Your task to perform on an android device: Add razer blade to the cart on amazon Image 0: 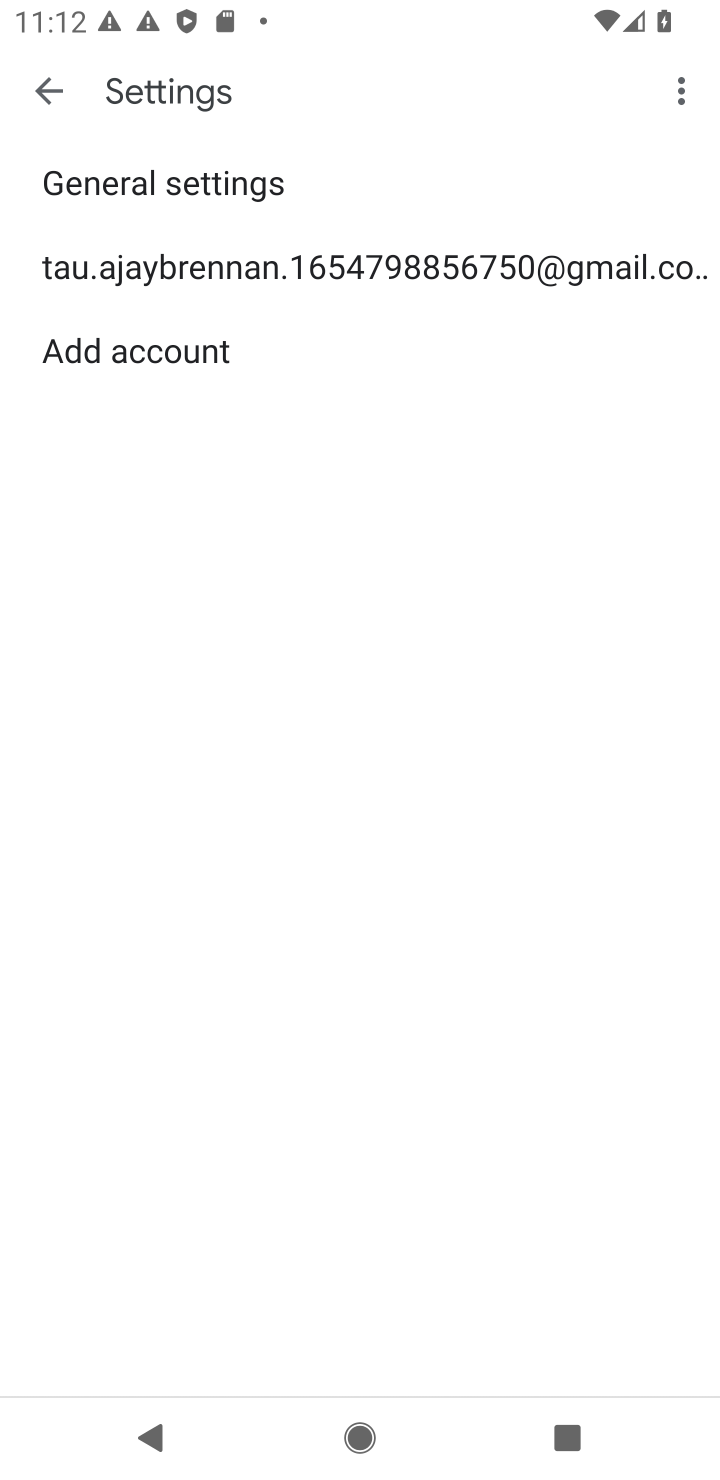
Step 0: press home button
Your task to perform on an android device: Add razer blade to the cart on amazon Image 1: 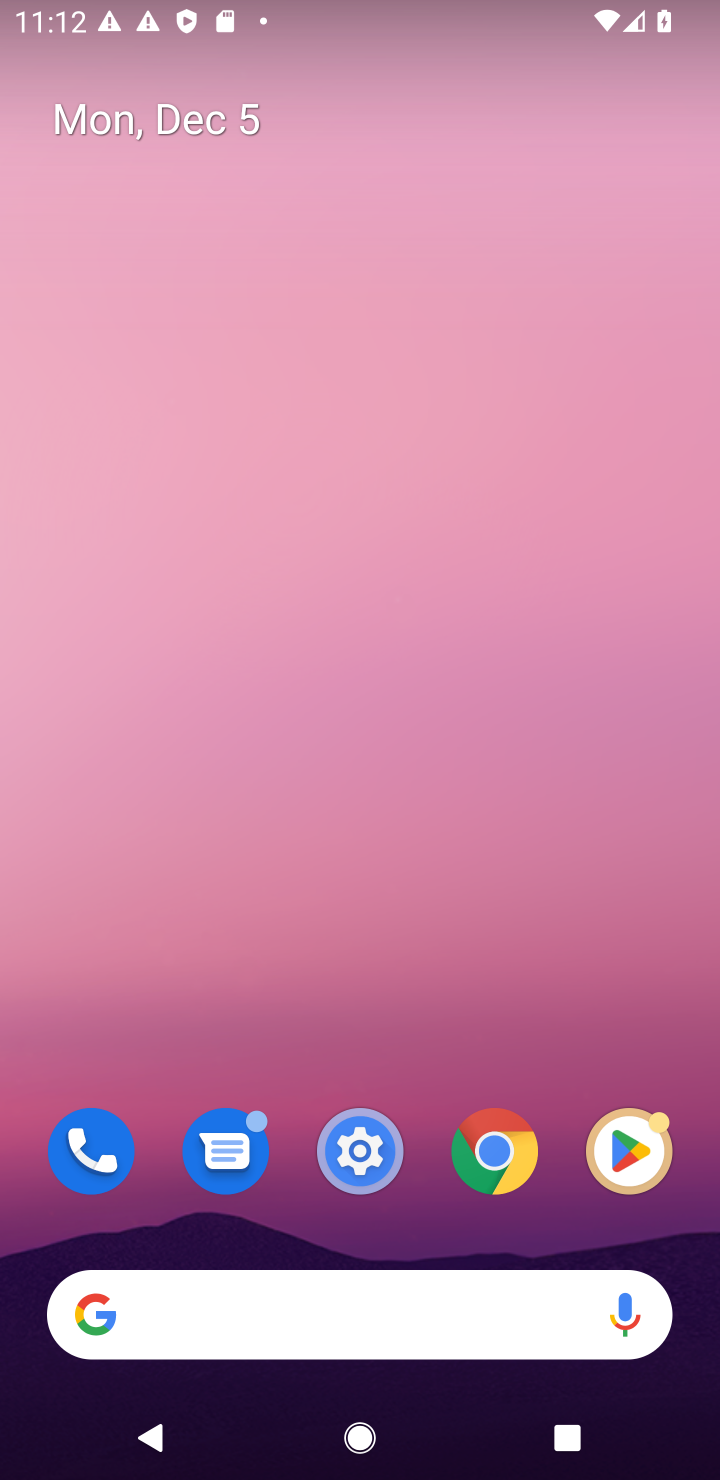
Step 1: click (495, 1161)
Your task to perform on an android device: Add razer blade to the cart on amazon Image 2: 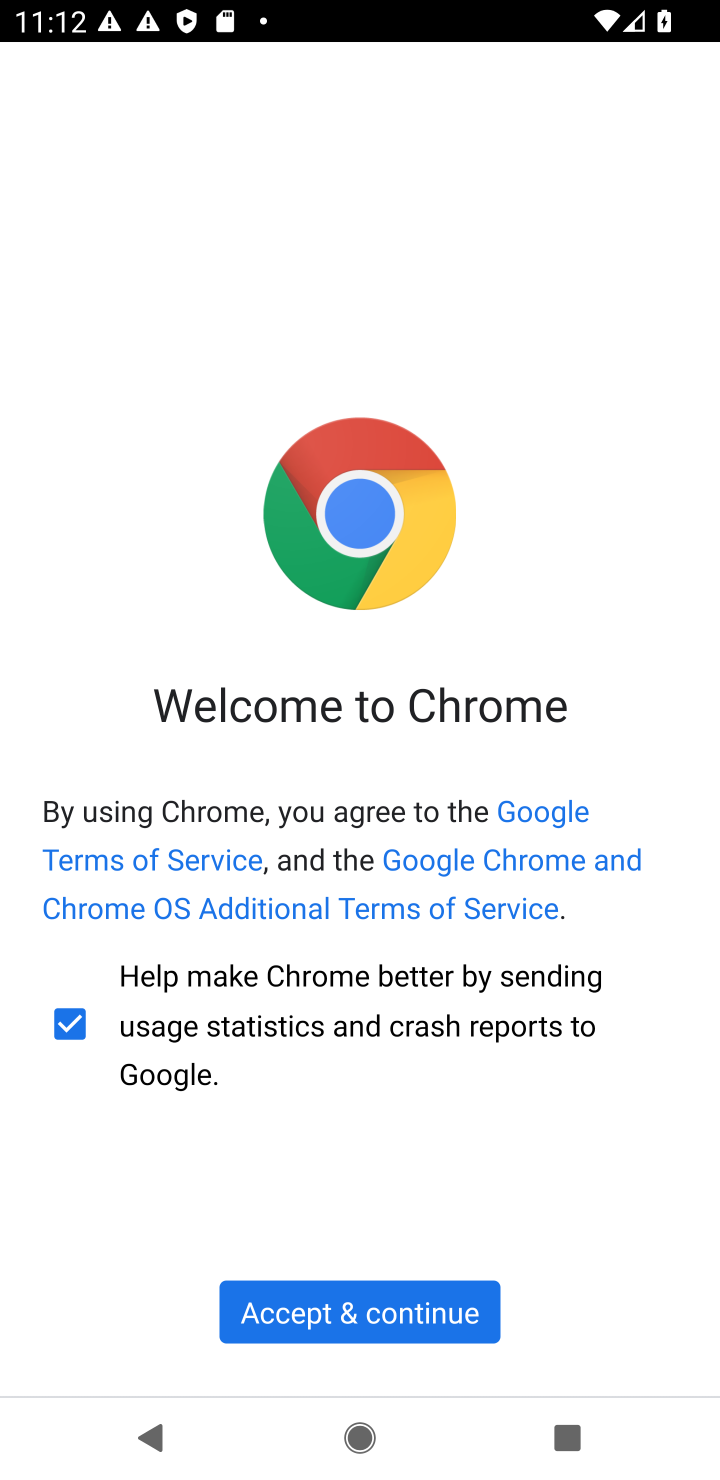
Step 2: click (326, 1327)
Your task to perform on an android device: Add razer blade to the cart on amazon Image 3: 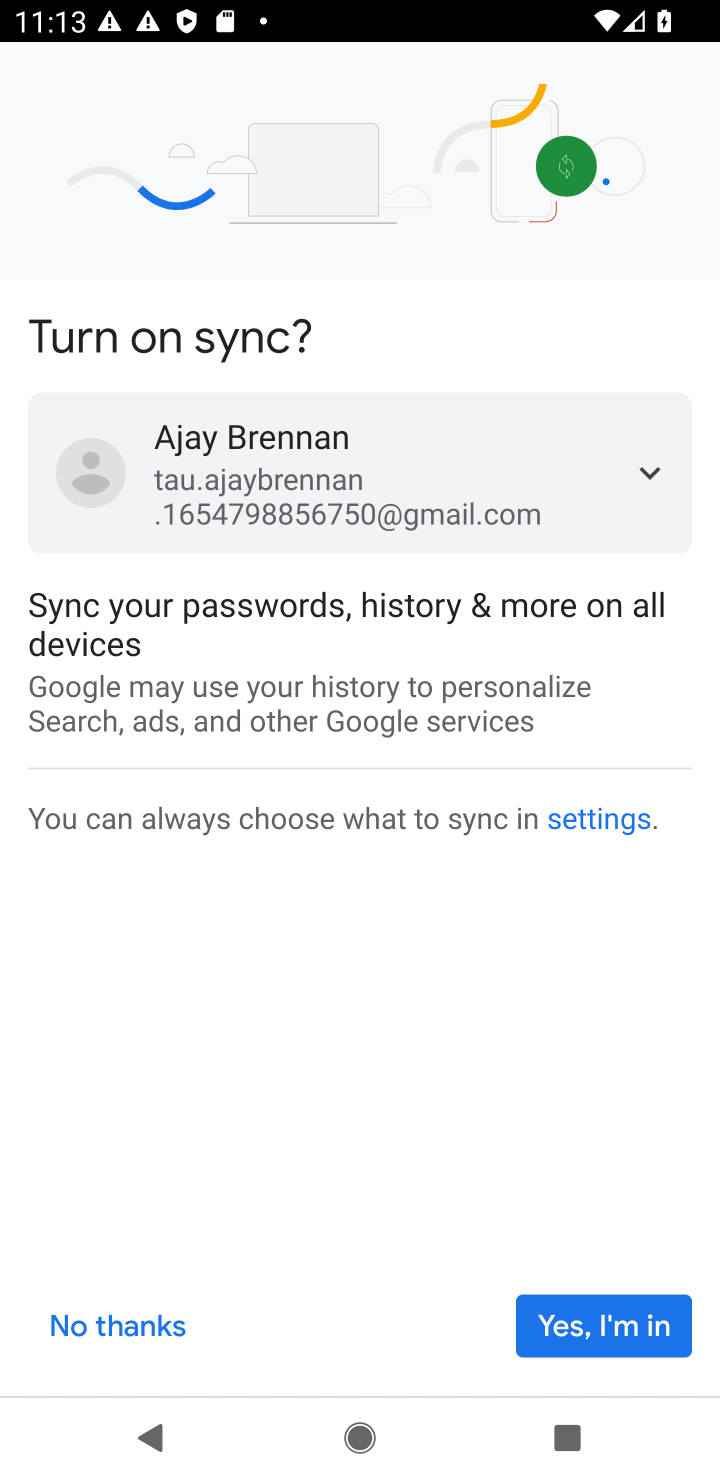
Step 3: click (138, 1321)
Your task to perform on an android device: Add razer blade to the cart on amazon Image 4: 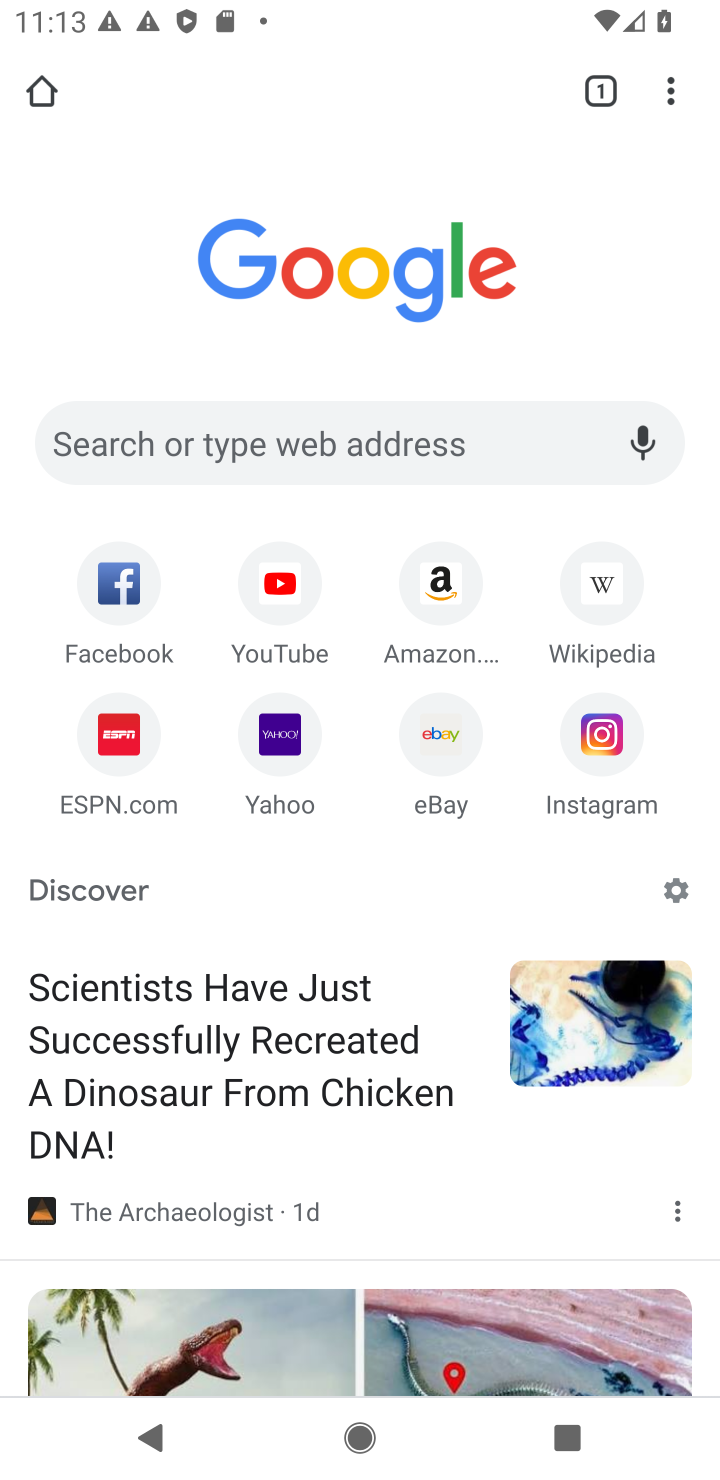
Step 4: click (431, 602)
Your task to perform on an android device: Add razer blade to the cart on amazon Image 5: 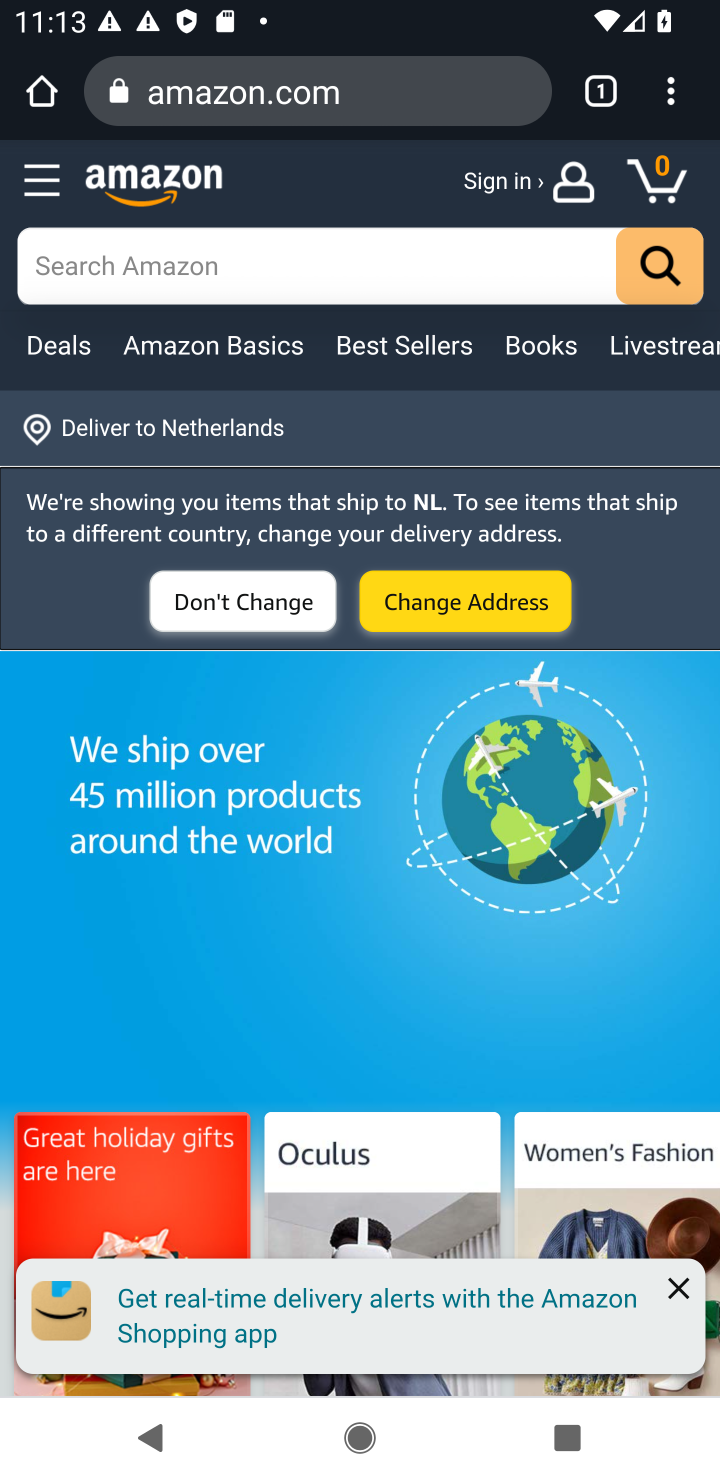
Step 5: click (398, 276)
Your task to perform on an android device: Add razer blade to the cart on amazon Image 6: 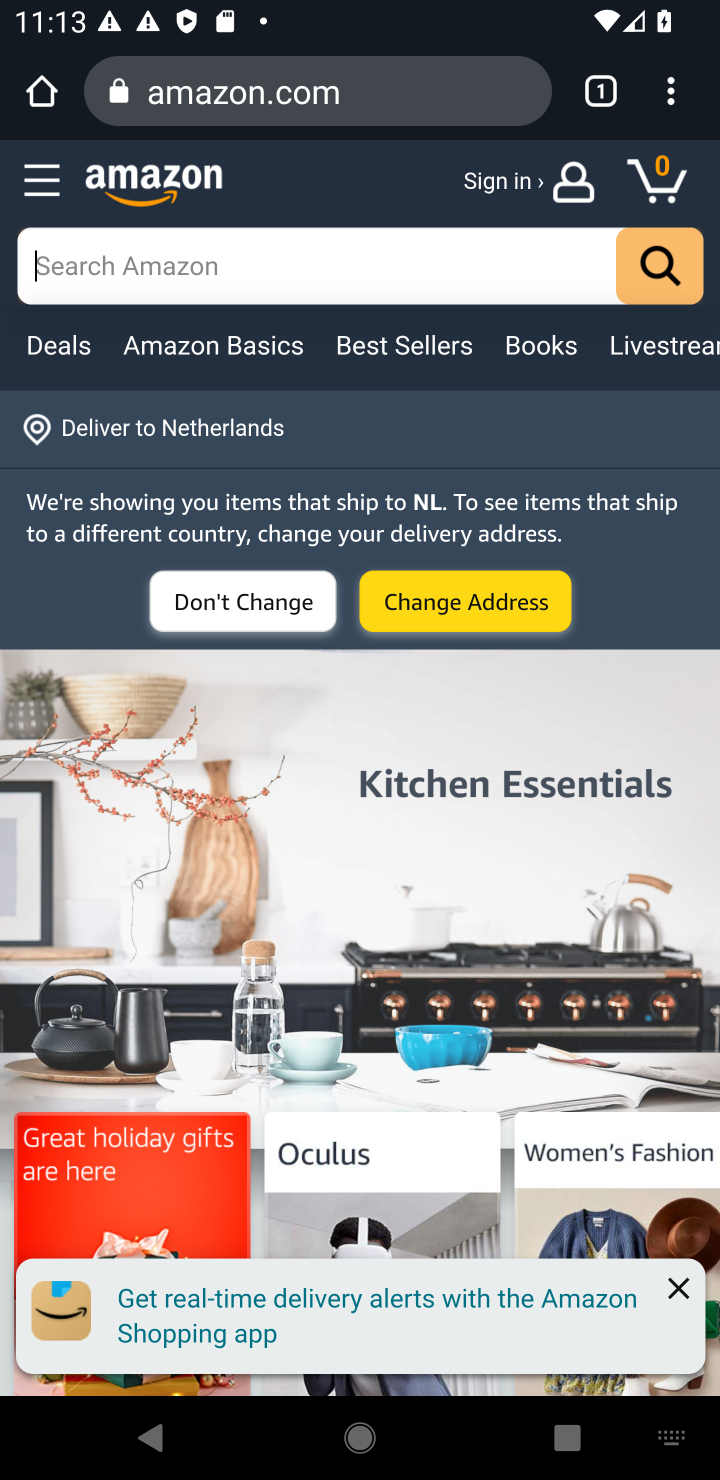
Step 6: type "razer blade"
Your task to perform on an android device: Add razer blade to the cart on amazon Image 7: 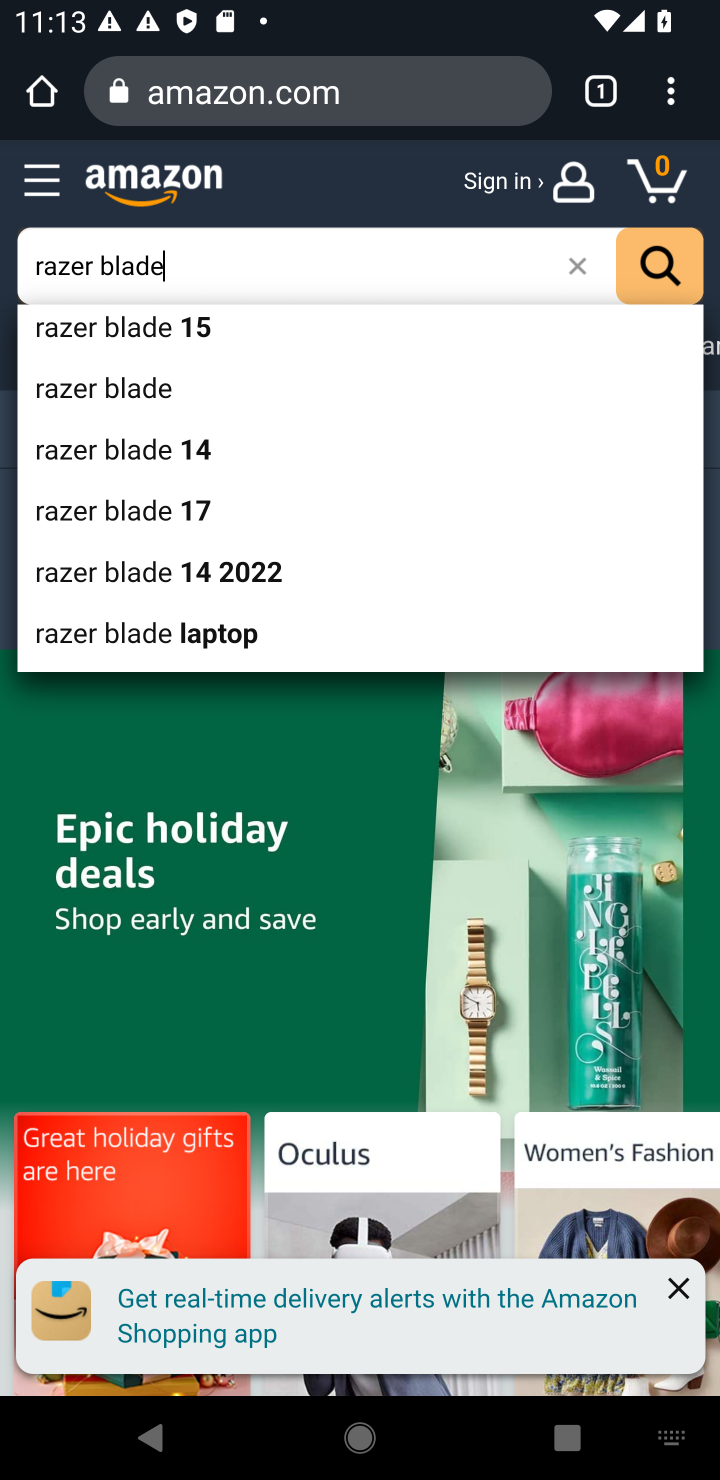
Step 7: click (113, 403)
Your task to perform on an android device: Add razer blade to the cart on amazon Image 8: 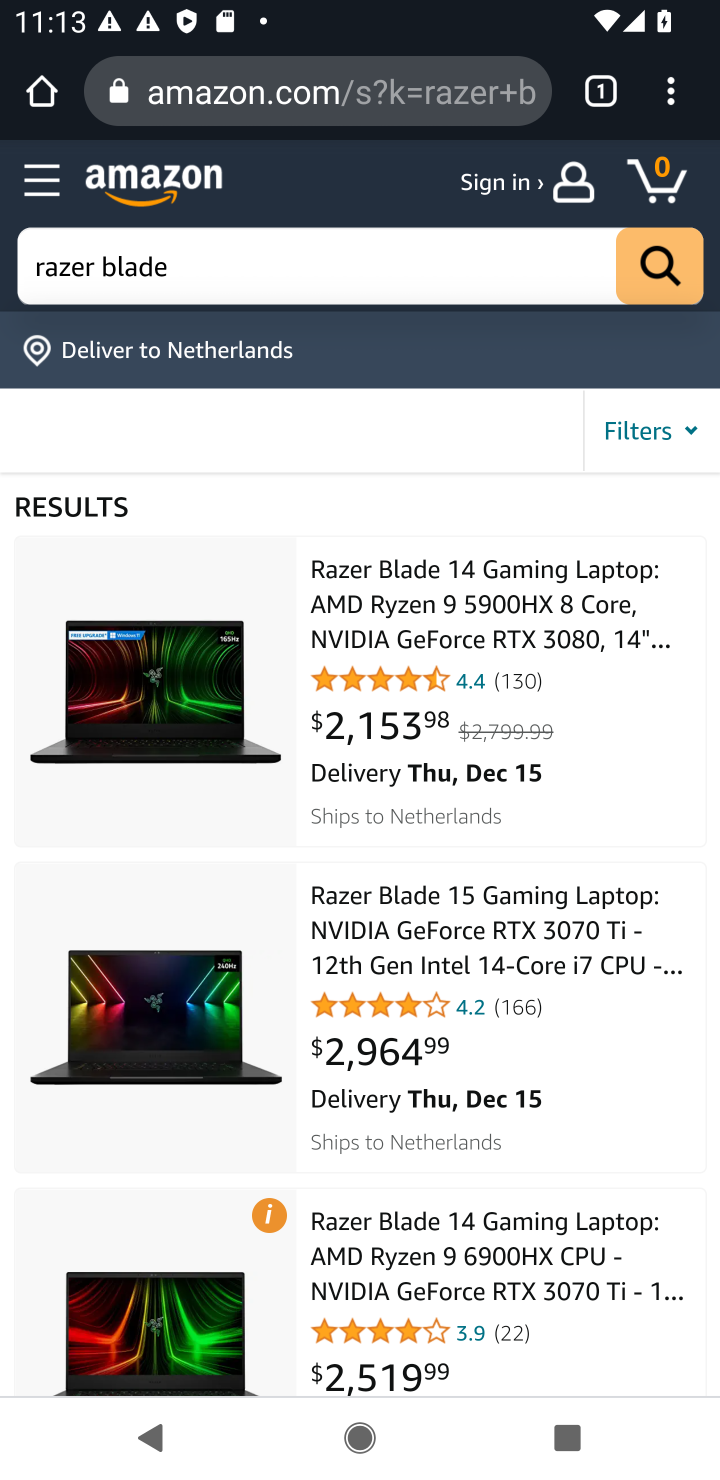
Step 8: click (415, 660)
Your task to perform on an android device: Add razer blade to the cart on amazon Image 9: 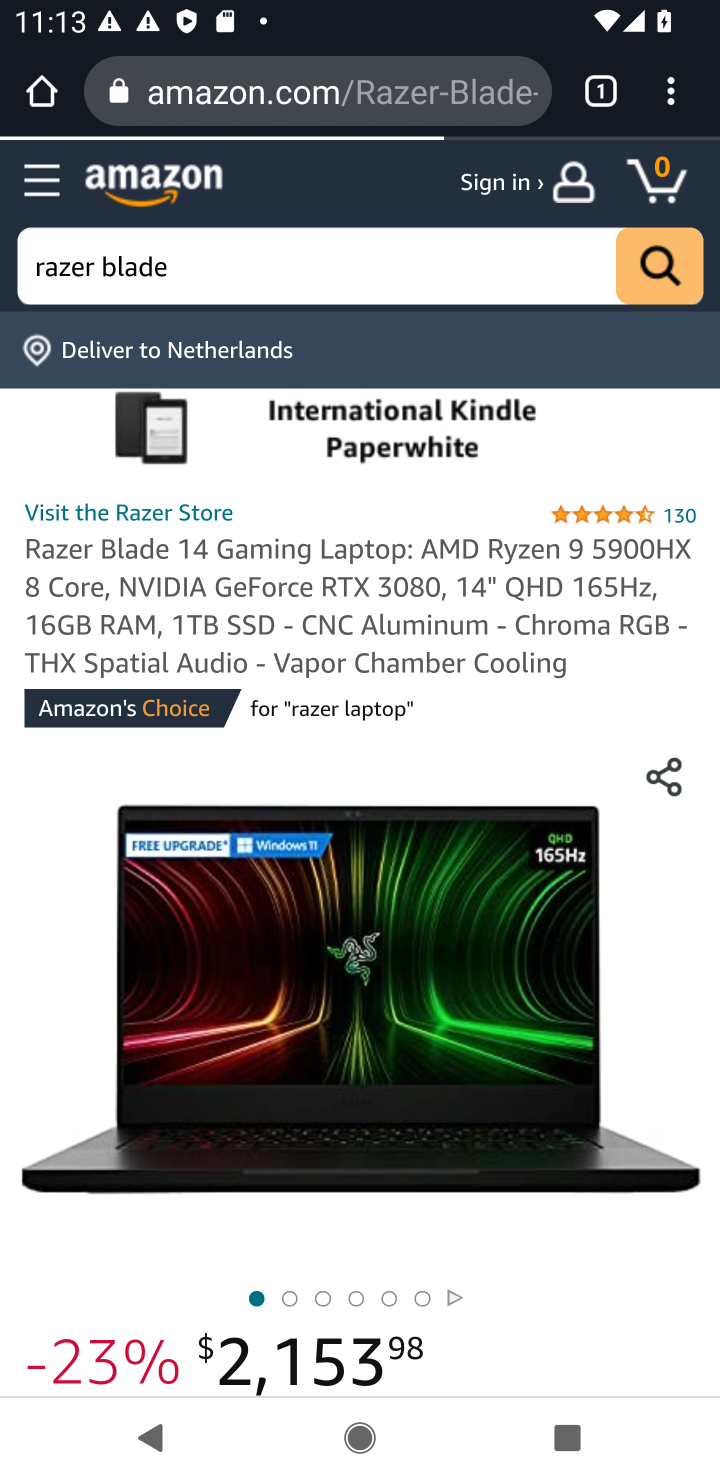
Step 9: drag from (368, 819) to (366, 429)
Your task to perform on an android device: Add razer blade to the cart on amazon Image 10: 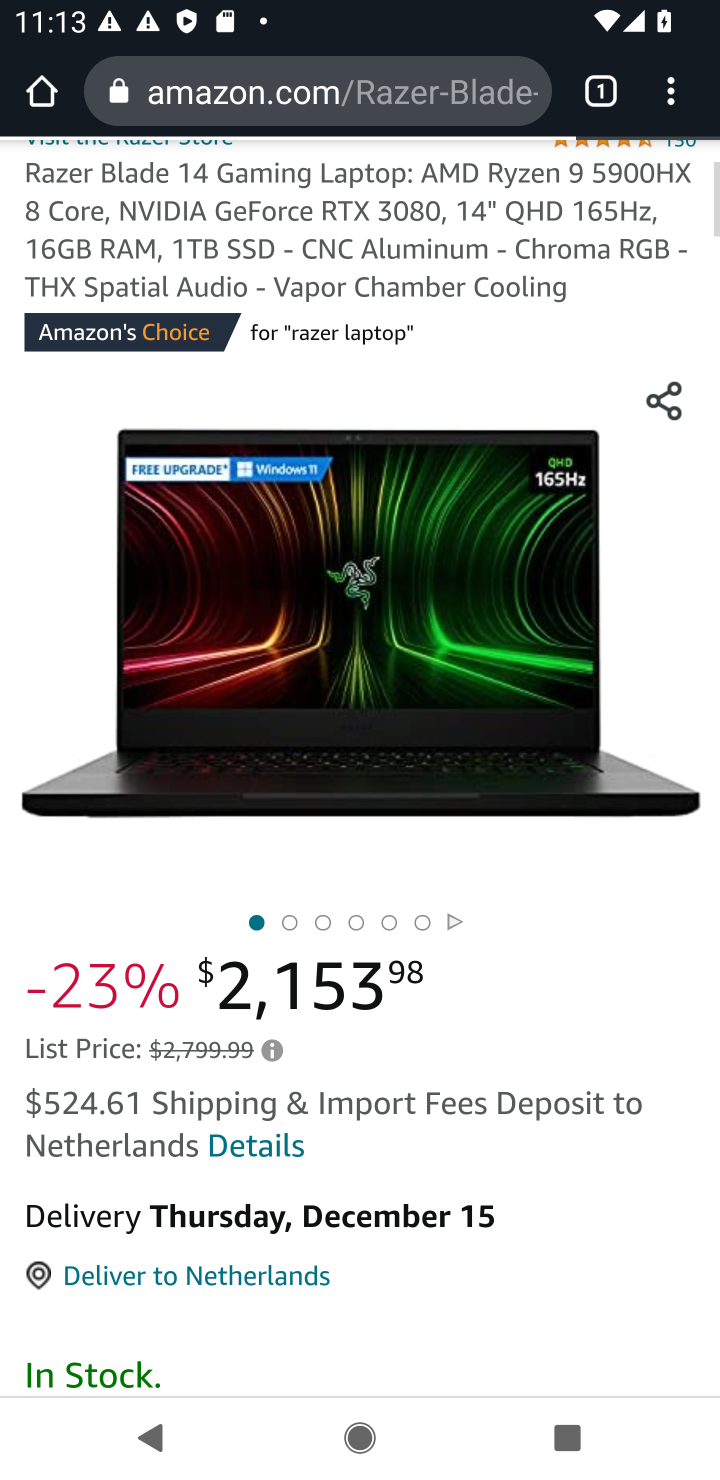
Step 10: drag from (370, 1009) to (366, 340)
Your task to perform on an android device: Add razer blade to the cart on amazon Image 11: 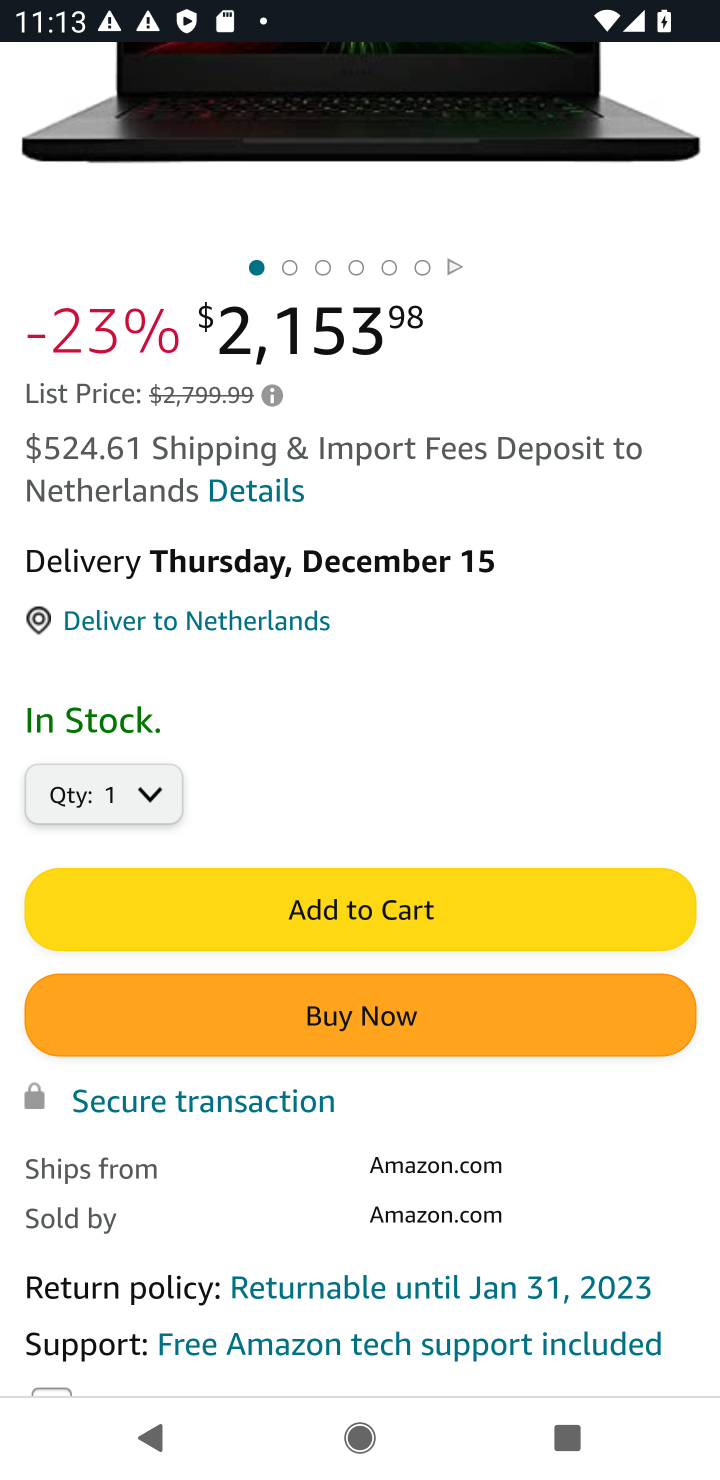
Step 11: click (307, 914)
Your task to perform on an android device: Add razer blade to the cart on amazon Image 12: 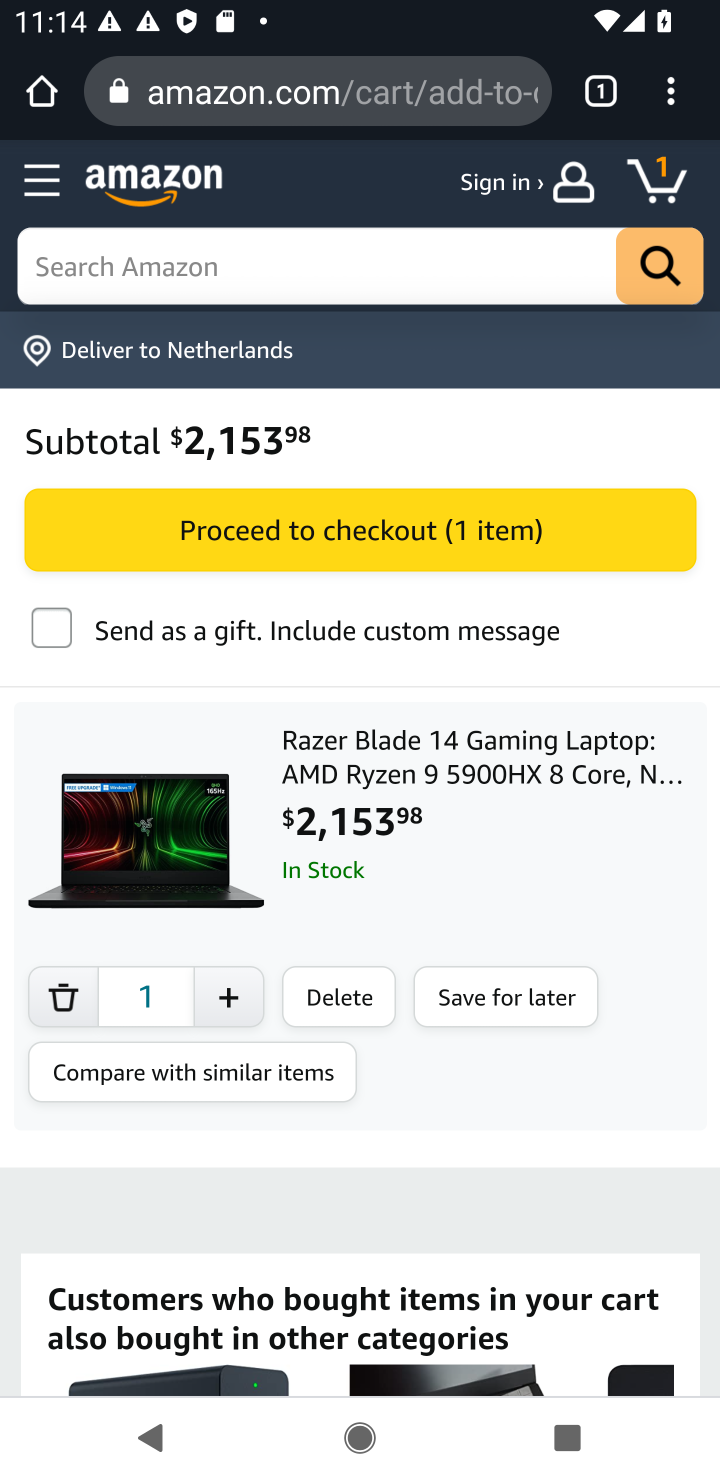
Step 12: task complete